Your task to perform on an android device: toggle wifi Image 0: 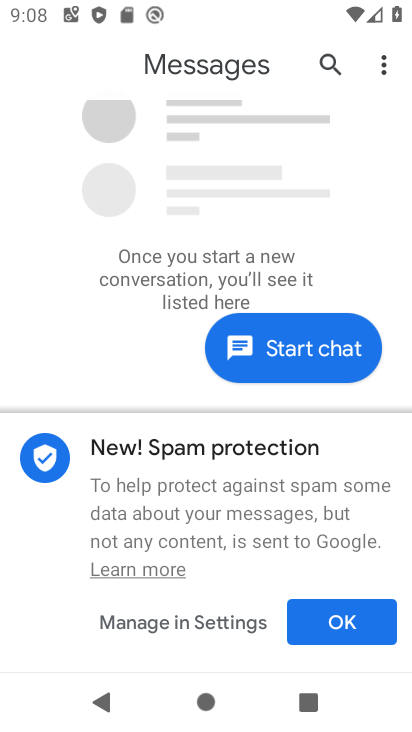
Step 0: press home button
Your task to perform on an android device: toggle wifi Image 1: 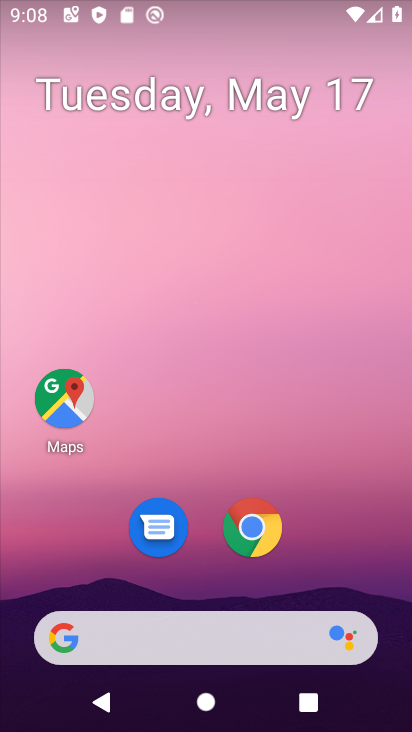
Step 1: drag from (190, 625) to (297, 202)
Your task to perform on an android device: toggle wifi Image 2: 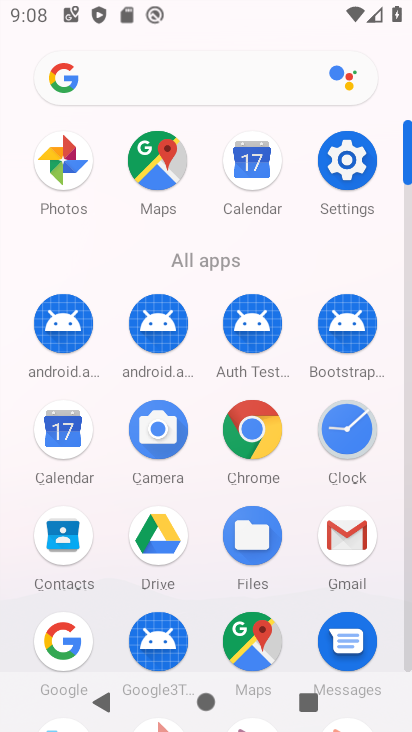
Step 2: click (345, 164)
Your task to perform on an android device: toggle wifi Image 3: 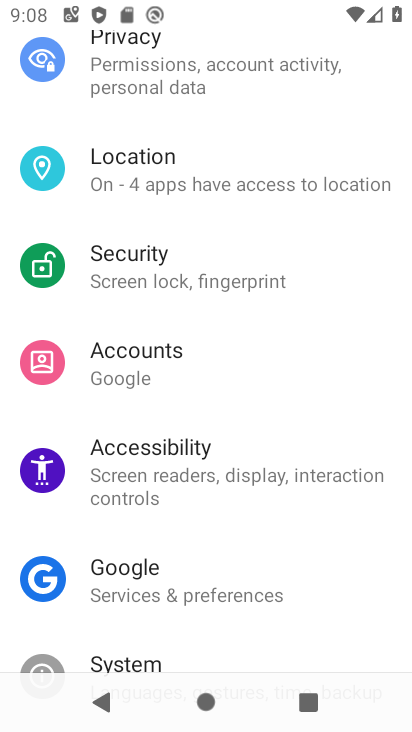
Step 3: drag from (244, 136) to (209, 518)
Your task to perform on an android device: toggle wifi Image 4: 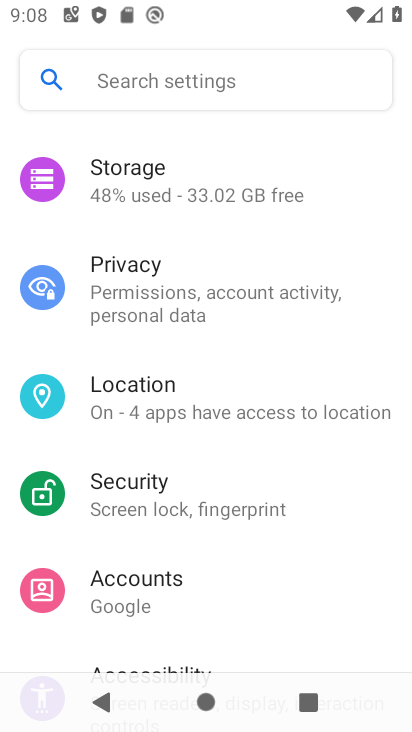
Step 4: drag from (262, 139) to (235, 489)
Your task to perform on an android device: toggle wifi Image 5: 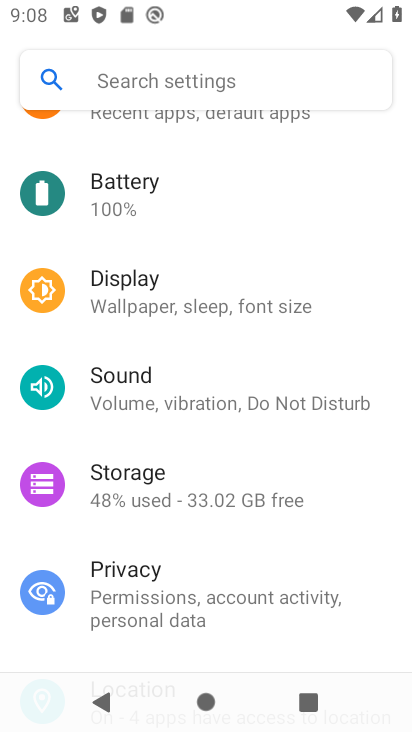
Step 5: drag from (265, 179) to (260, 598)
Your task to perform on an android device: toggle wifi Image 6: 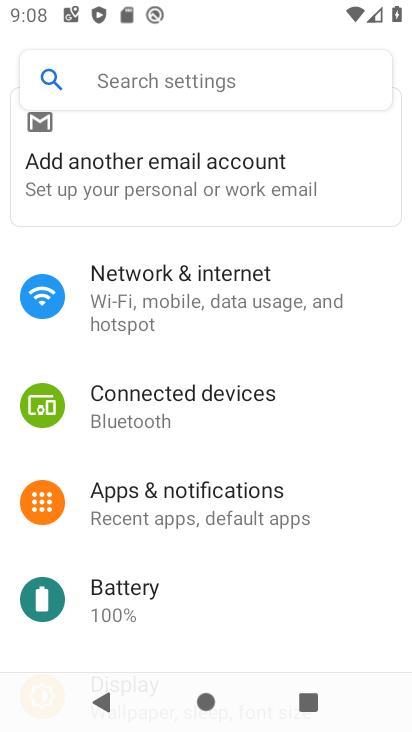
Step 6: click (244, 279)
Your task to perform on an android device: toggle wifi Image 7: 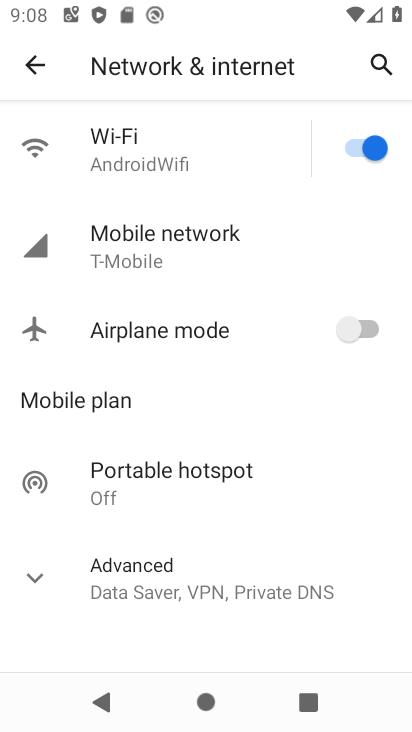
Step 7: click (356, 147)
Your task to perform on an android device: toggle wifi Image 8: 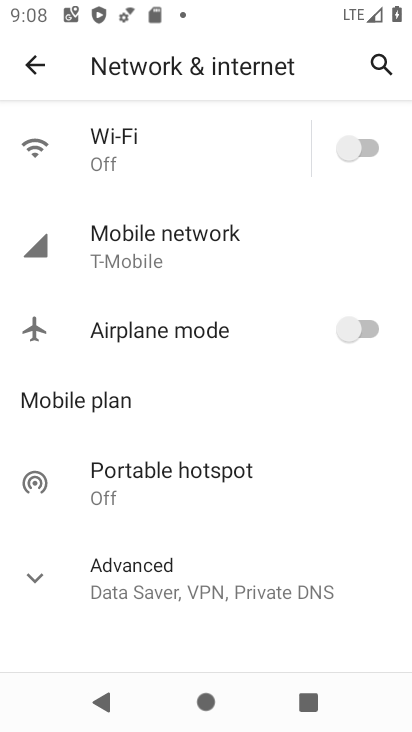
Step 8: task complete